Your task to perform on an android device: Go to battery settings Image 0: 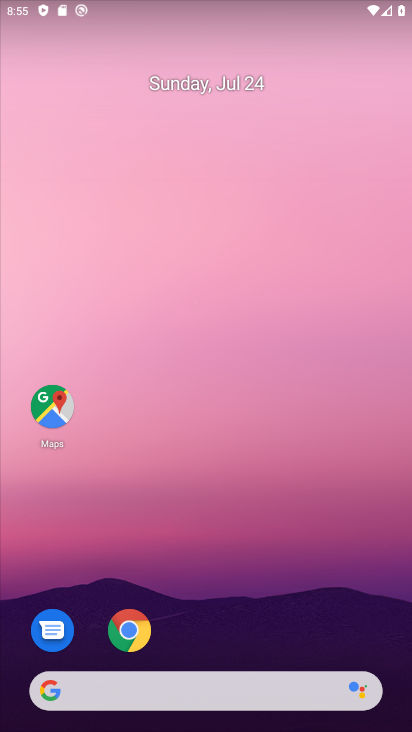
Step 0: drag from (233, 583) to (202, 0)
Your task to perform on an android device: Go to battery settings Image 1: 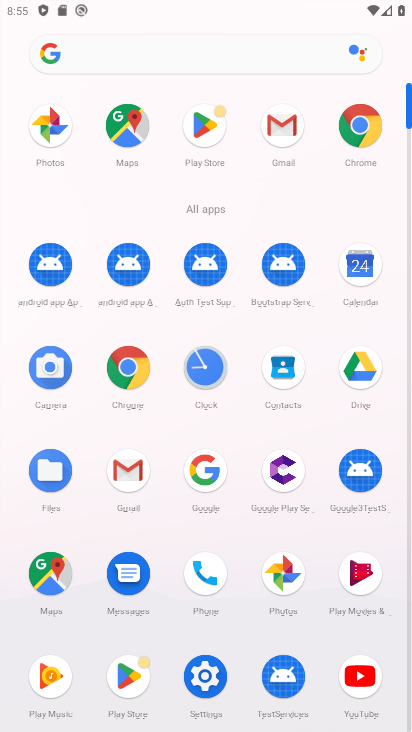
Step 1: click (206, 672)
Your task to perform on an android device: Go to battery settings Image 2: 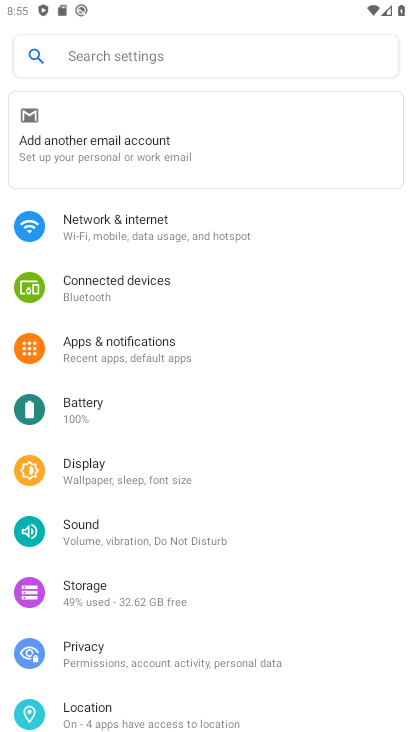
Step 2: task complete